Your task to perform on an android device: check the backup settings in the google photos Image 0: 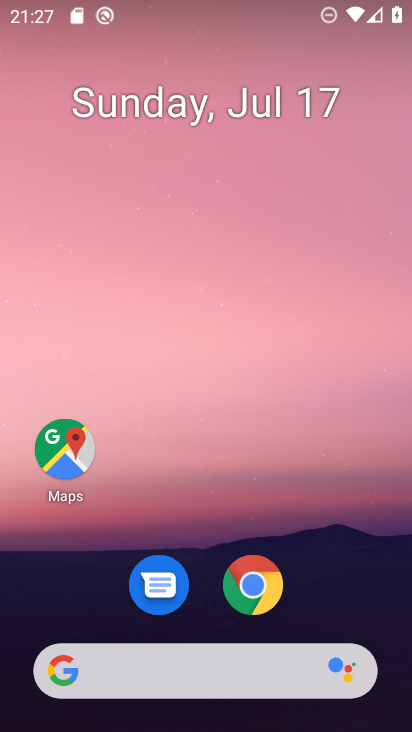
Step 0: drag from (234, 664) to (393, 66)
Your task to perform on an android device: check the backup settings in the google photos Image 1: 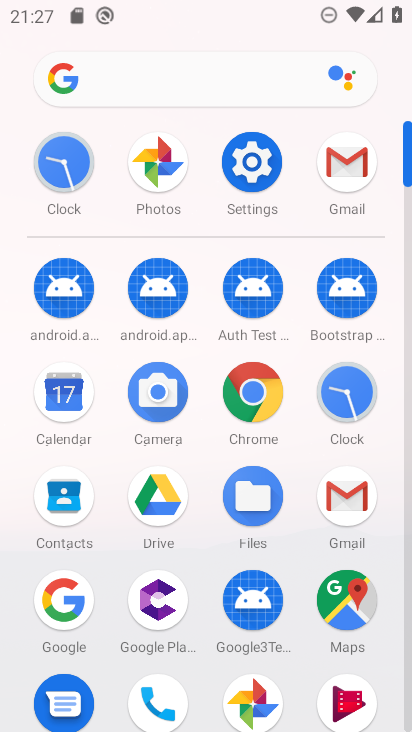
Step 1: click (252, 179)
Your task to perform on an android device: check the backup settings in the google photos Image 2: 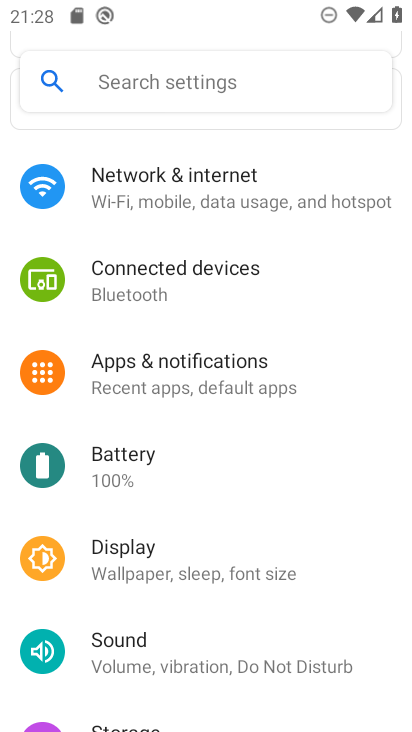
Step 2: press home button
Your task to perform on an android device: check the backup settings in the google photos Image 3: 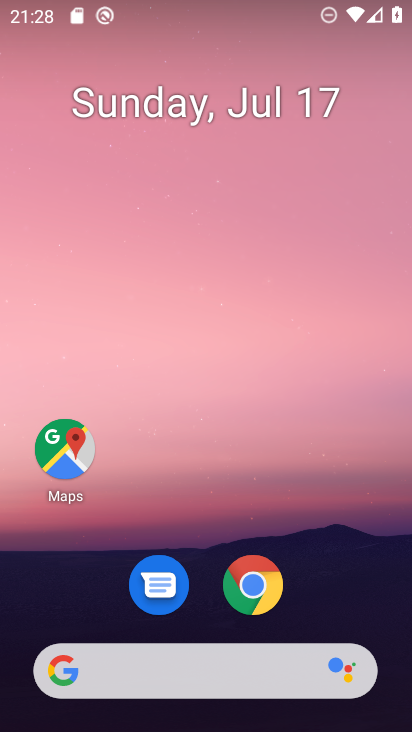
Step 3: drag from (205, 655) to (316, 75)
Your task to perform on an android device: check the backup settings in the google photos Image 4: 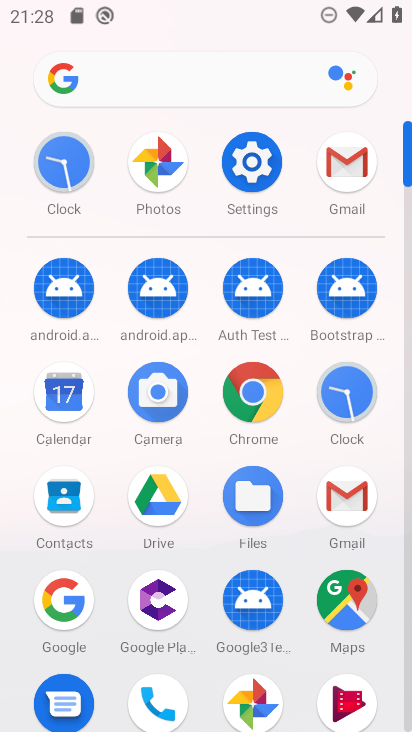
Step 4: click (256, 702)
Your task to perform on an android device: check the backup settings in the google photos Image 5: 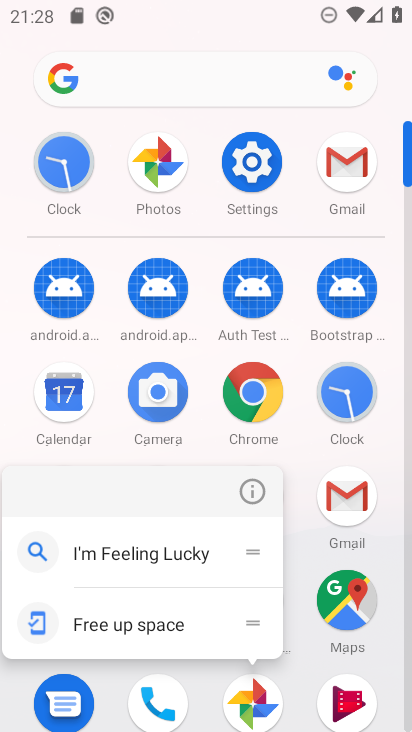
Step 5: click (251, 708)
Your task to perform on an android device: check the backup settings in the google photos Image 6: 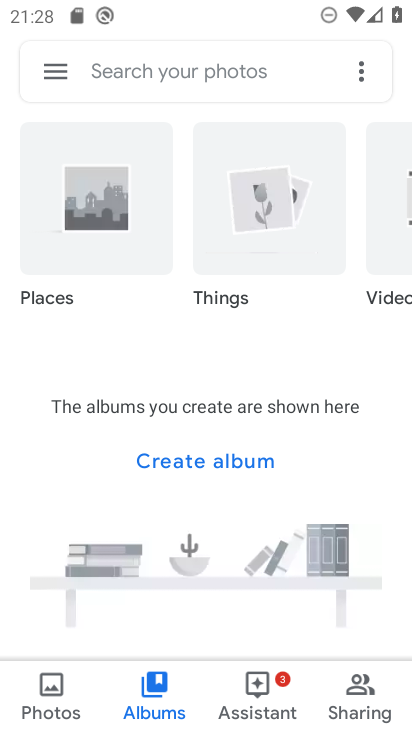
Step 6: click (49, 68)
Your task to perform on an android device: check the backup settings in the google photos Image 7: 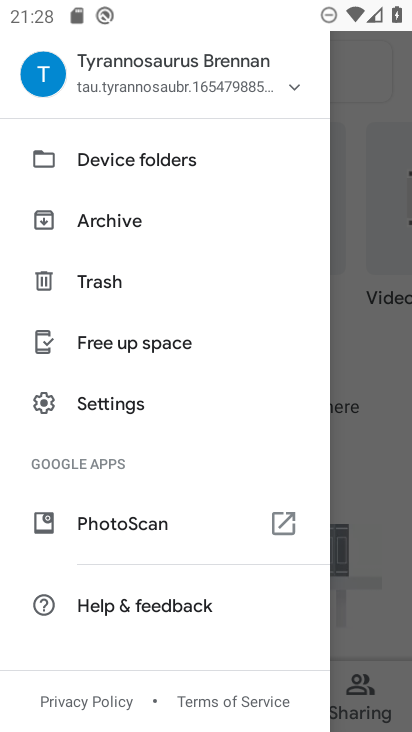
Step 7: click (116, 389)
Your task to perform on an android device: check the backup settings in the google photos Image 8: 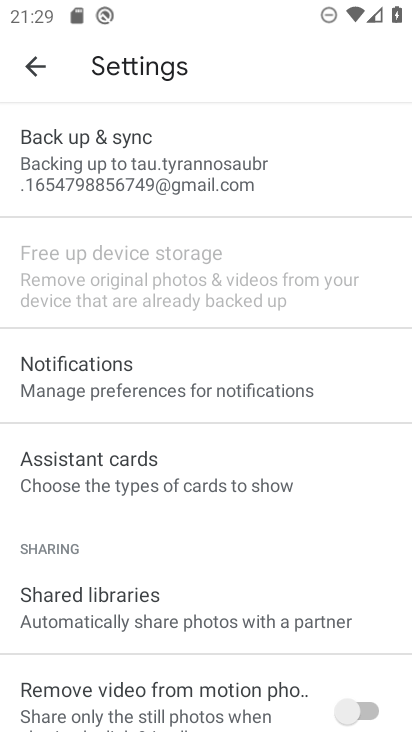
Step 8: click (158, 182)
Your task to perform on an android device: check the backup settings in the google photos Image 9: 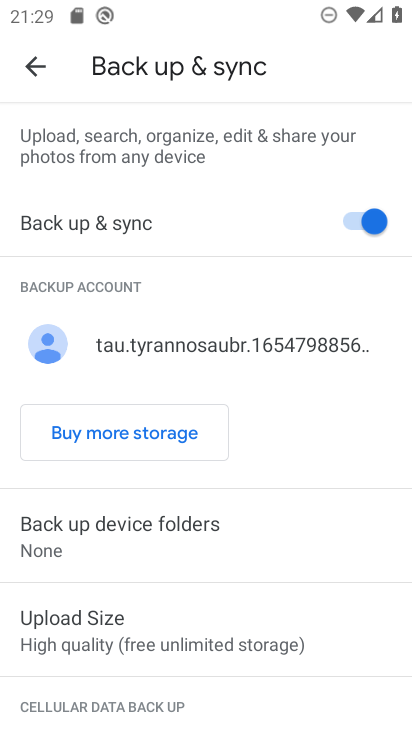
Step 9: task complete